Your task to perform on an android device: delete the emails in spam in the gmail app Image 0: 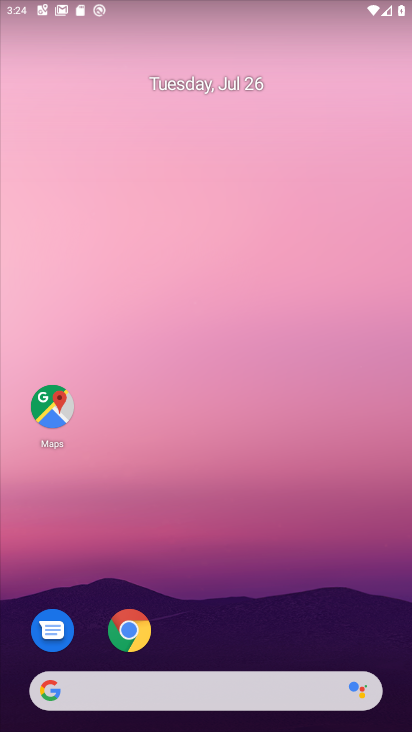
Step 0: drag from (198, 644) to (213, 87)
Your task to perform on an android device: delete the emails in spam in the gmail app Image 1: 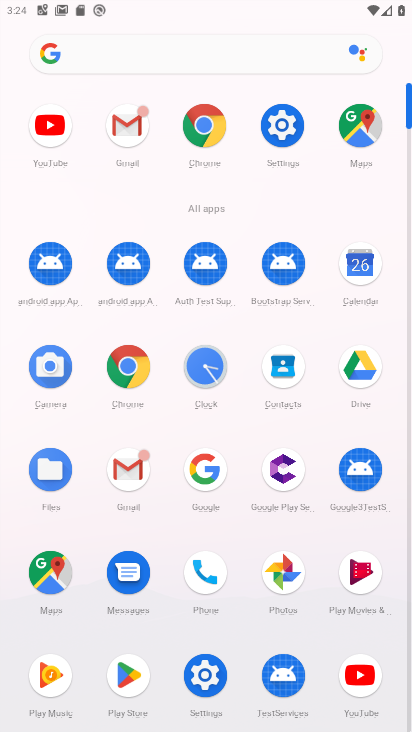
Step 1: click (140, 119)
Your task to perform on an android device: delete the emails in spam in the gmail app Image 2: 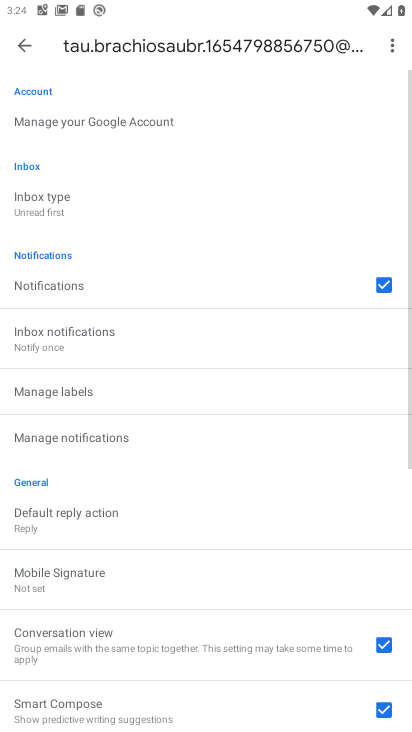
Step 2: click (32, 56)
Your task to perform on an android device: delete the emails in spam in the gmail app Image 3: 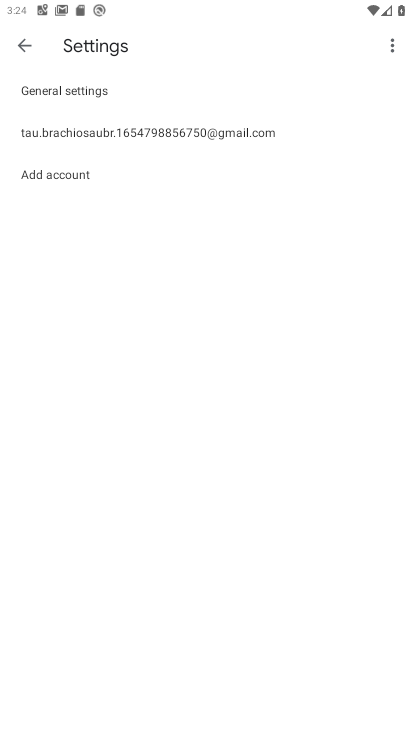
Step 3: click (32, 56)
Your task to perform on an android device: delete the emails in spam in the gmail app Image 4: 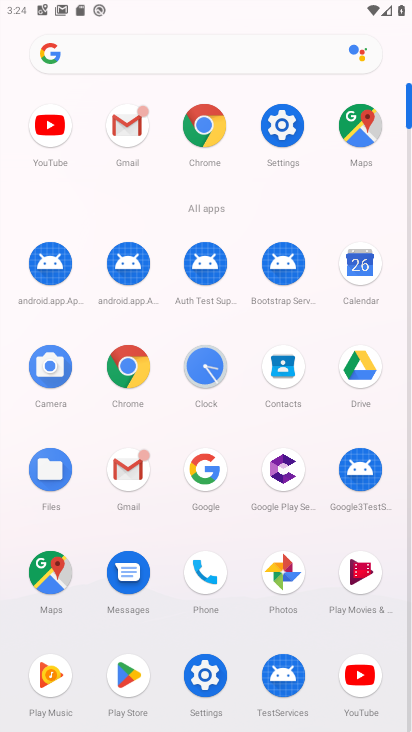
Step 4: click (133, 119)
Your task to perform on an android device: delete the emails in spam in the gmail app Image 5: 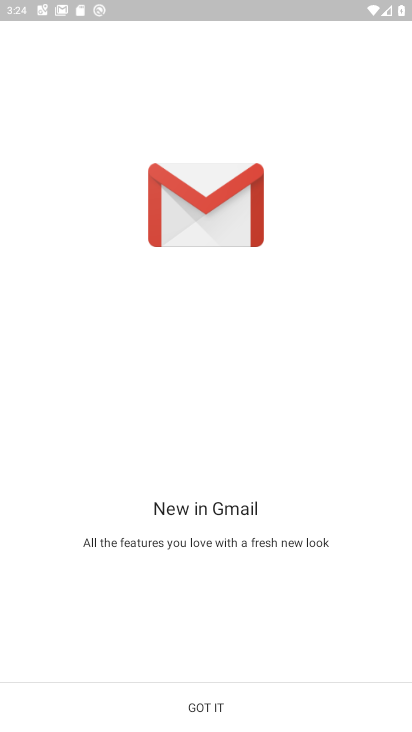
Step 5: click (228, 713)
Your task to perform on an android device: delete the emails in spam in the gmail app Image 6: 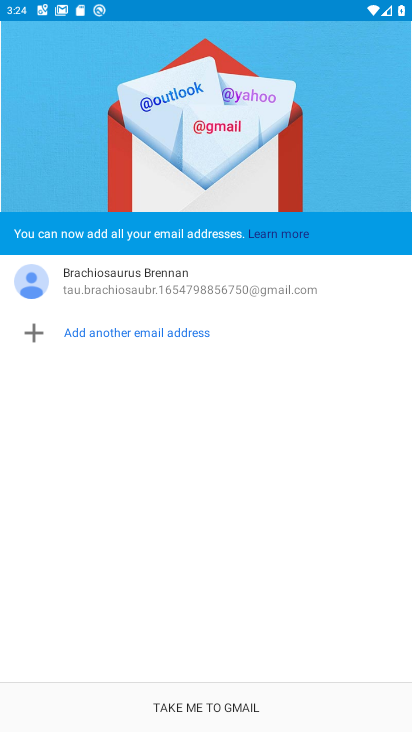
Step 6: click (138, 699)
Your task to perform on an android device: delete the emails in spam in the gmail app Image 7: 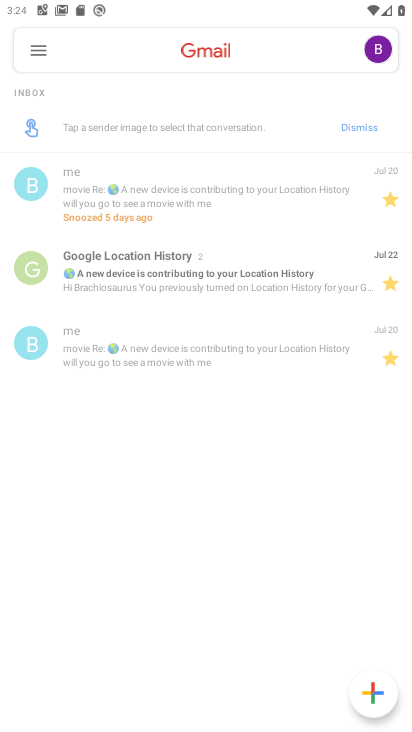
Step 7: click (42, 51)
Your task to perform on an android device: delete the emails in spam in the gmail app Image 8: 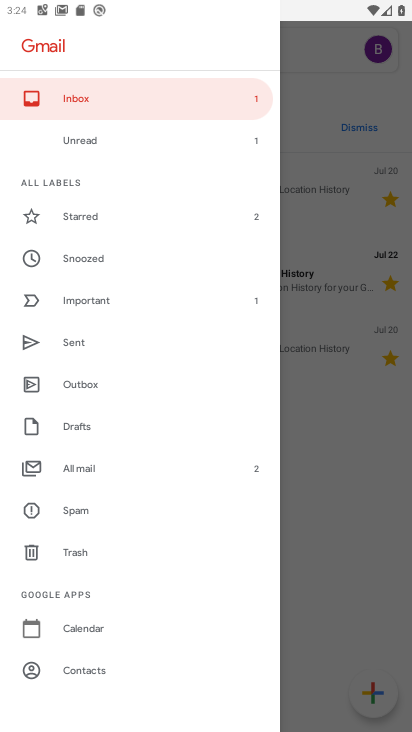
Step 8: click (110, 501)
Your task to perform on an android device: delete the emails in spam in the gmail app Image 9: 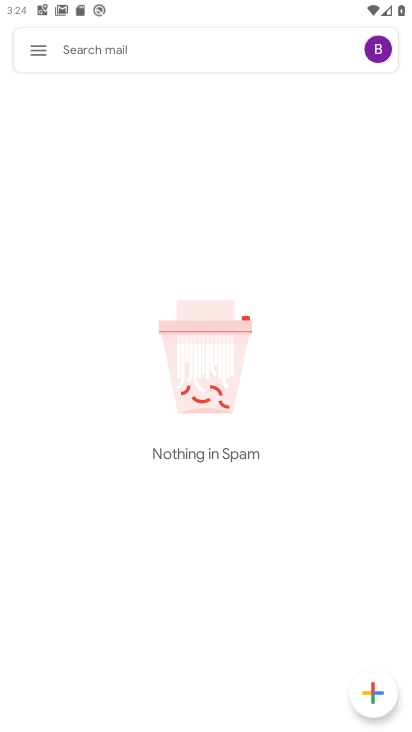
Step 9: task complete